Your task to perform on an android device: turn smart compose on in the gmail app Image 0: 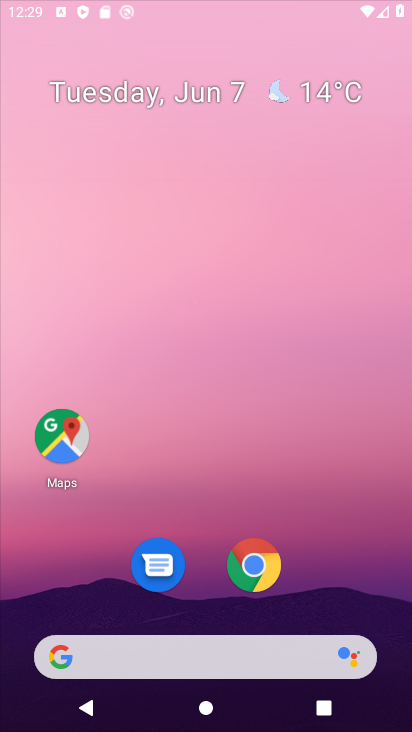
Step 0: click (282, 108)
Your task to perform on an android device: turn smart compose on in the gmail app Image 1: 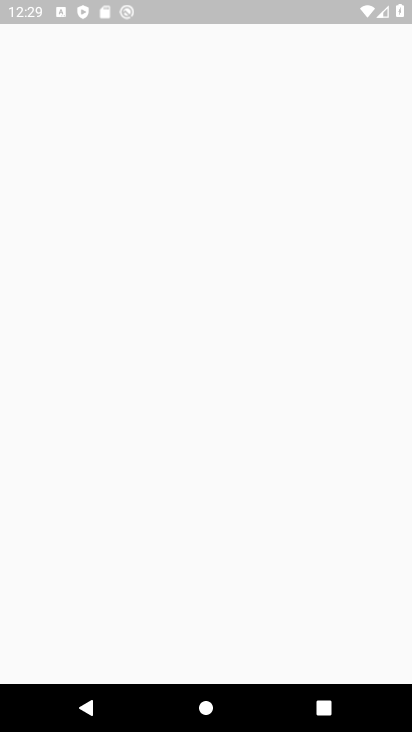
Step 1: press home button
Your task to perform on an android device: turn smart compose on in the gmail app Image 2: 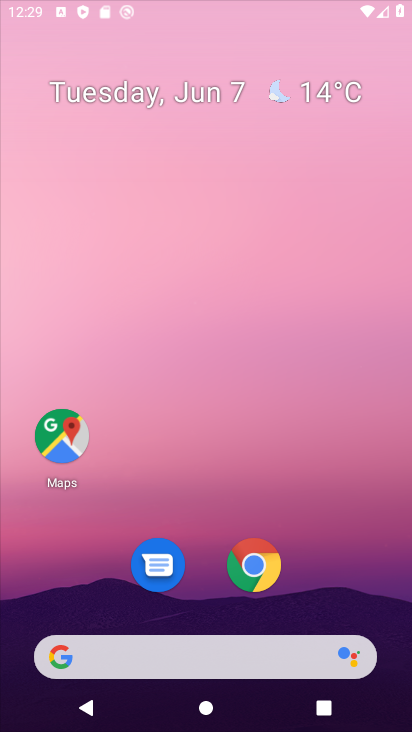
Step 2: drag from (229, 690) to (239, 85)
Your task to perform on an android device: turn smart compose on in the gmail app Image 3: 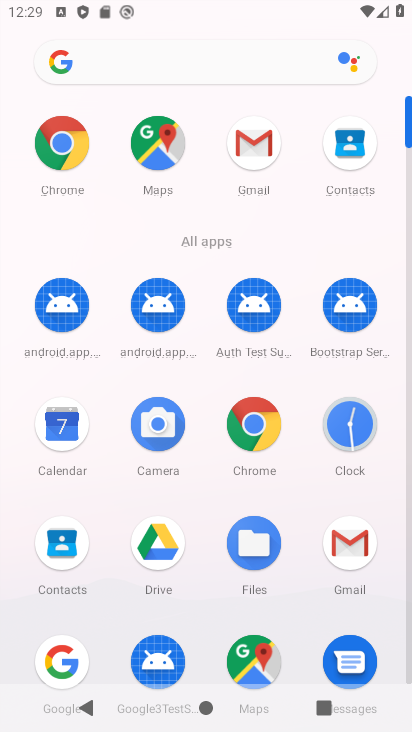
Step 3: click (354, 539)
Your task to perform on an android device: turn smart compose on in the gmail app Image 4: 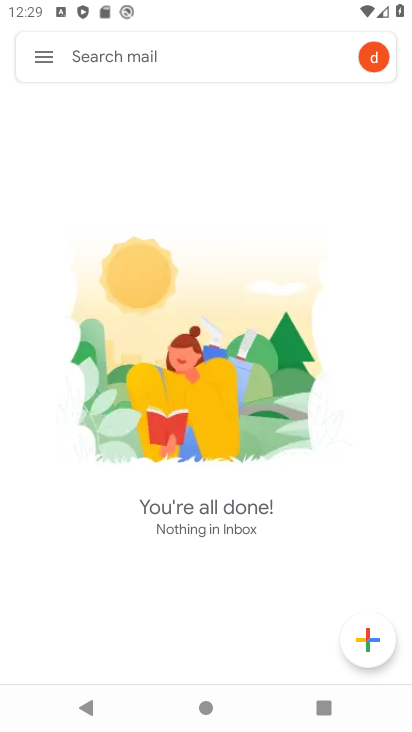
Step 4: click (27, 61)
Your task to perform on an android device: turn smart compose on in the gmail app Image 5: 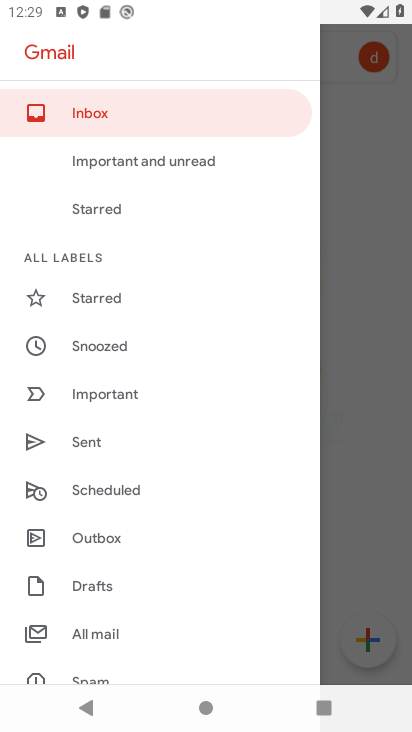
Step 5: drag from (161, 576) to (171, 54)
Your task to perform on an android device: turn smart compose on in the gmail app Image 6: 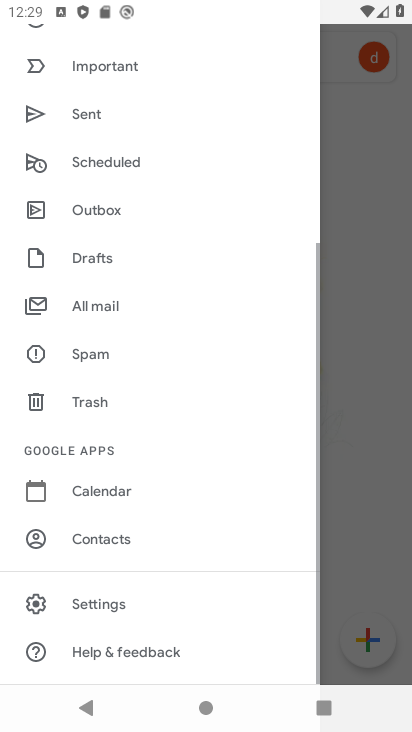
Step 6: click (144, 600)
Your task to perform on an android device: turn smart compose on in the gmail app Image 7: 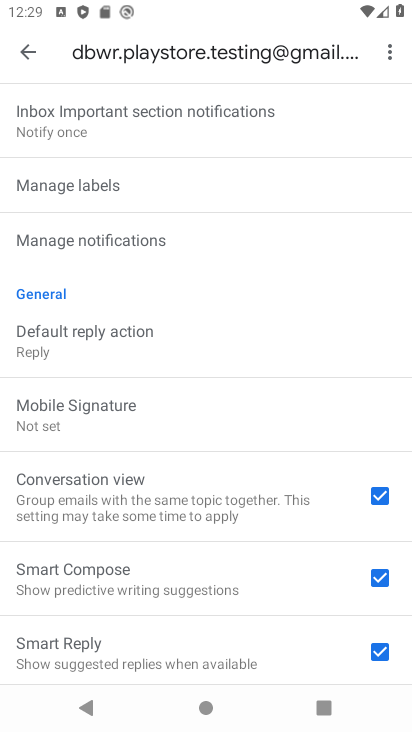
Step 7: task complete